Your task to perform on an android device: When is my next meeting? Image 0: 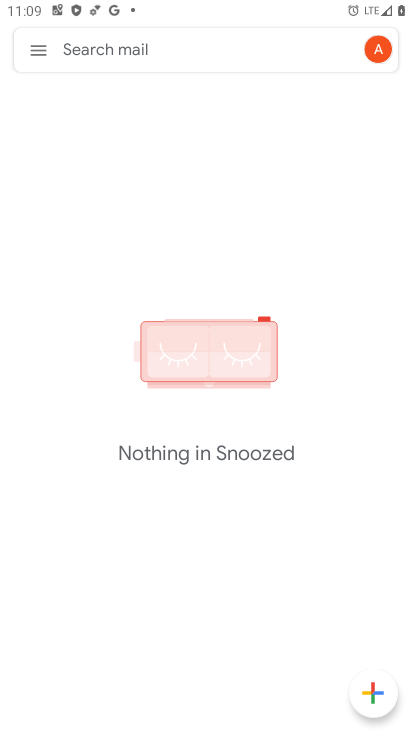
Step 0: press home button
Your task to perform on an android device: When is my next meeting? Image 1: 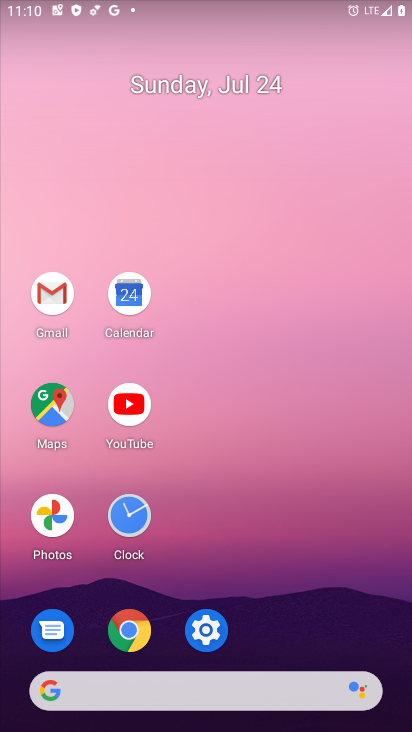
Step 1: click (127, 293)
Your task to perform on an android device: When is my next meeting? Image 2: 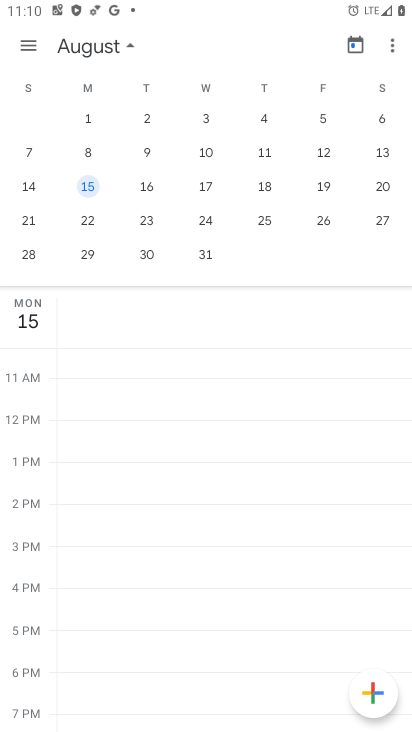
Step 2: drag from (47, 136) to (400, 144)
Your task to perform on an android device: When is my next meeting? Image 3: 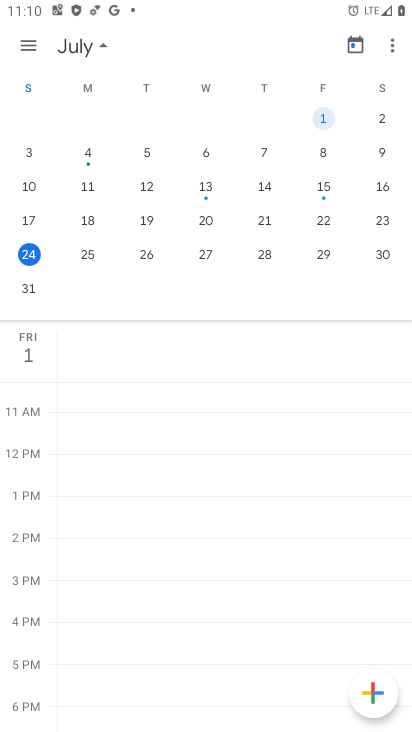
Step 3: click (29, 251)
Your task to perform on an android device: When is my next meeting? Image 4: 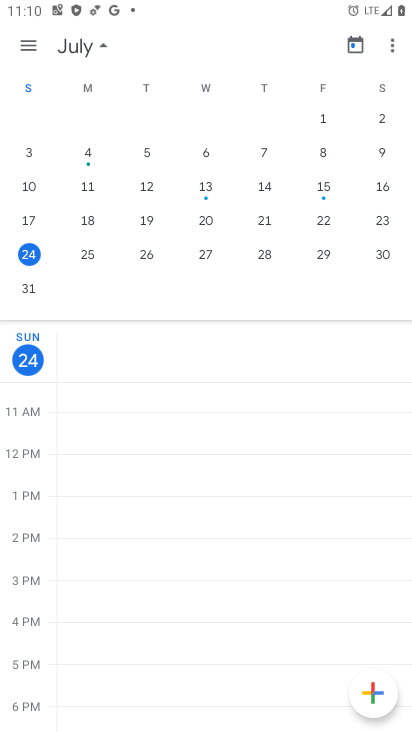
Step 4: click (29, 251)
Your task to perform on an android device: When is my next meeting? Image 5: 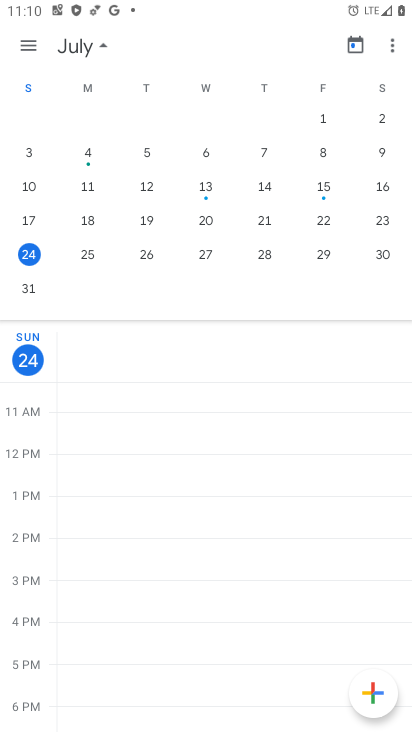
Step 5: click (371, 481)
Your task to perform on an android device: When is my next meeting? Image 6: 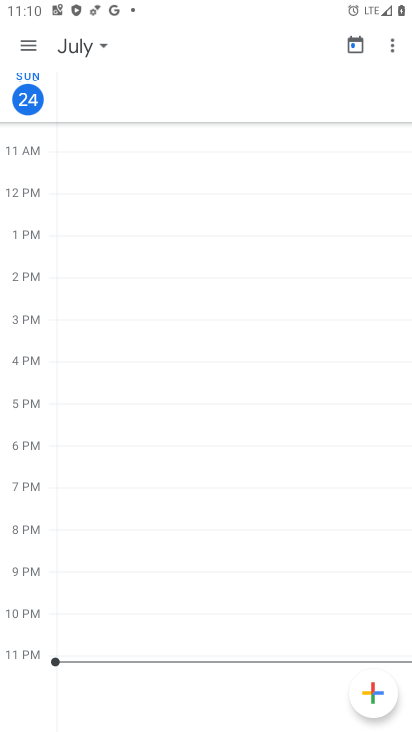
Step 6: task complete